Your task to perform on an android device: delete location history Image 0: 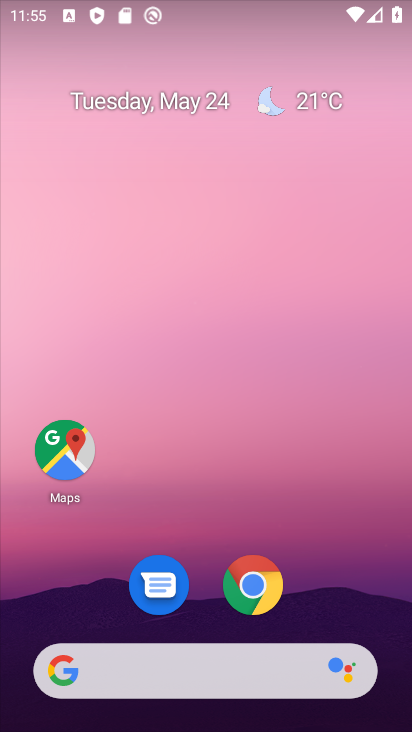
Step 0: drag from (276, 523) to (284, 57)
Your task to perform on an android device: delete location history Image 1: 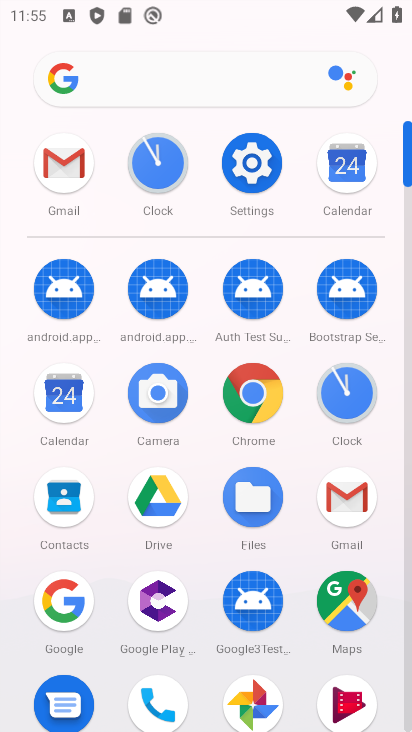
Step 1: click (262, 174)
Your task to perform on an android device: delete location history Image 2: 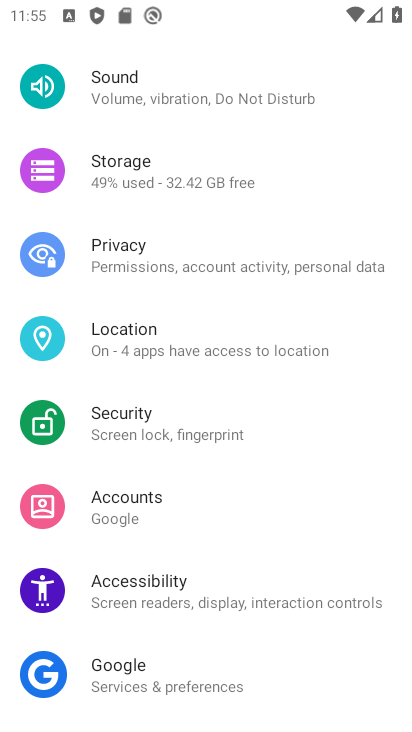
Step 2: press home button
Your task to perform on an android device: delete location history Image 3: 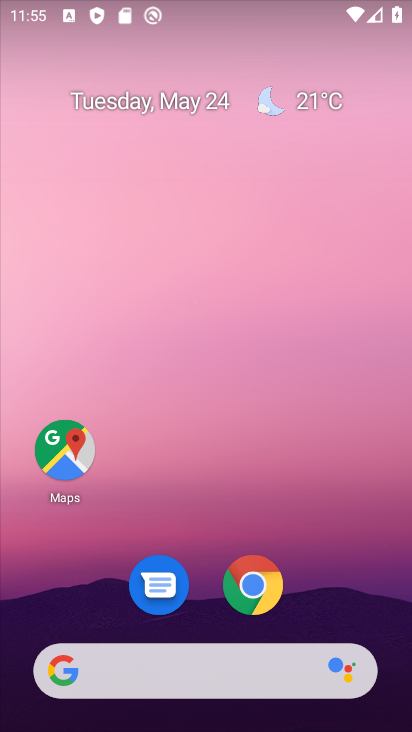
Step 3: click (65, 469)
Your task to perform on an android device: delete location history Image 4: 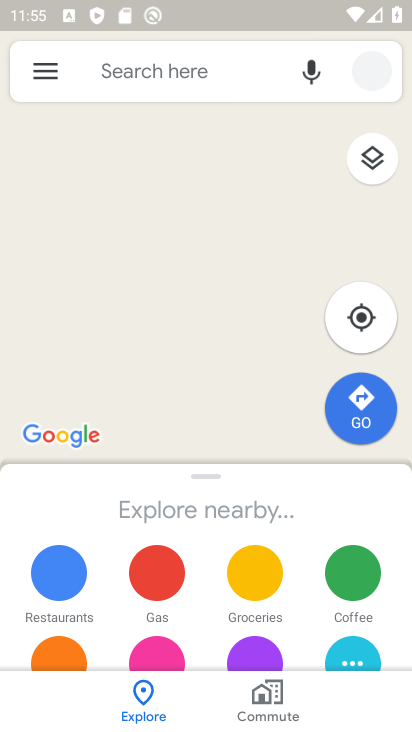
Step 4: click (51, 70)
Your task to perform on an android device: delete location history Image 5: 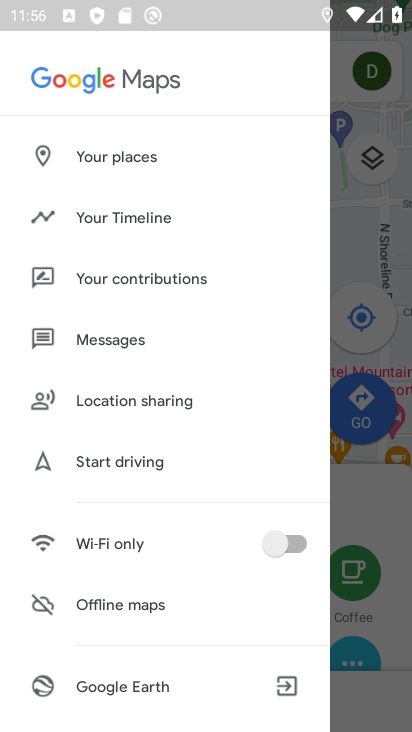
Step 5: click (119, 211)
Your task to perform on an android device: delete location history Image 6: 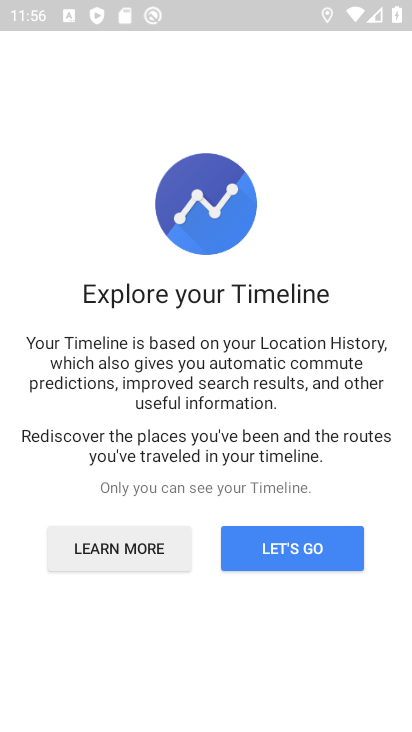
Step 6: click (289, 543)
Your task to perform on an android device: delete location history Image 7: 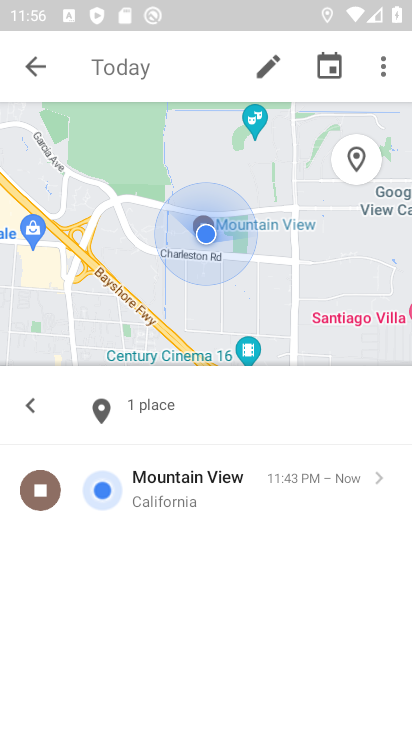
Step 7: click (382, 70)
Your task to perform on an android device: delete location history Image 8: 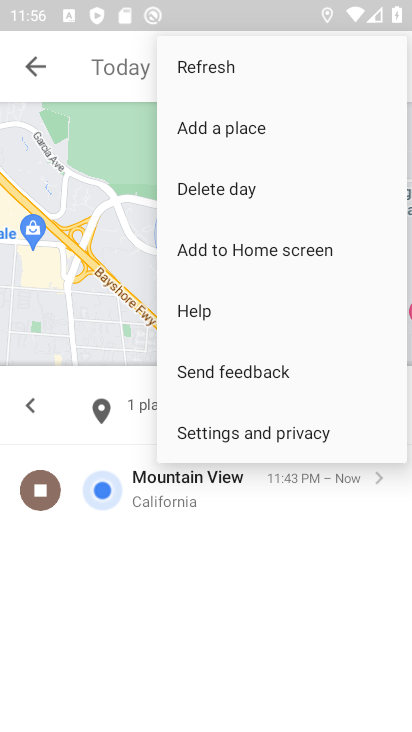
Step 8: click (282, 424)
Your task to perform on an android device: delete location history Image 9: 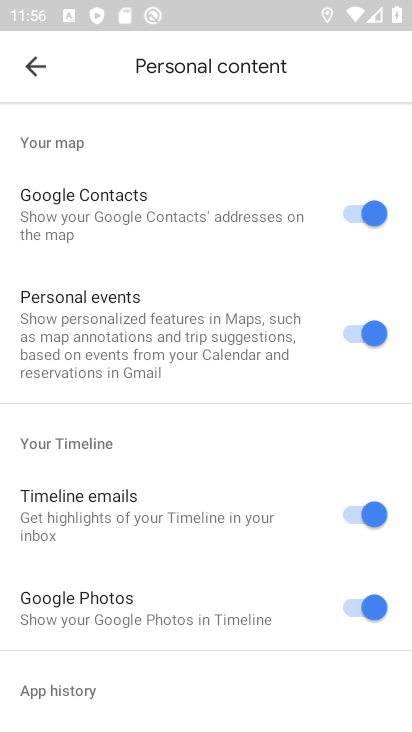
Step 9: drag from (252, 501) to (266, 70)
Your task to perform on an android device: delete location history Image 10: 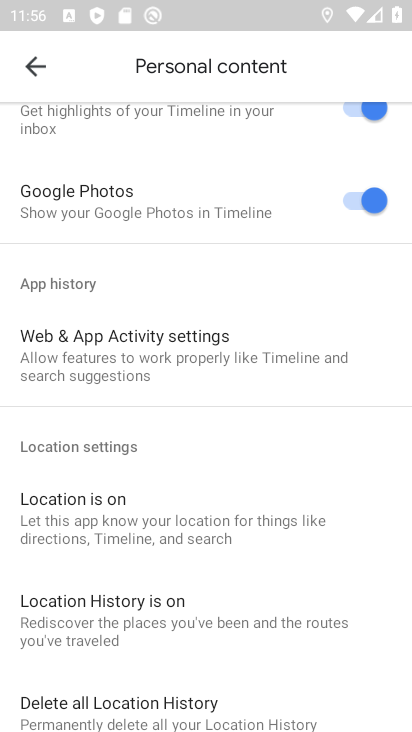
Step 10: drag from (171, 462) to (204, 116)
Your task to perform on an android device: delete location history Image 11: 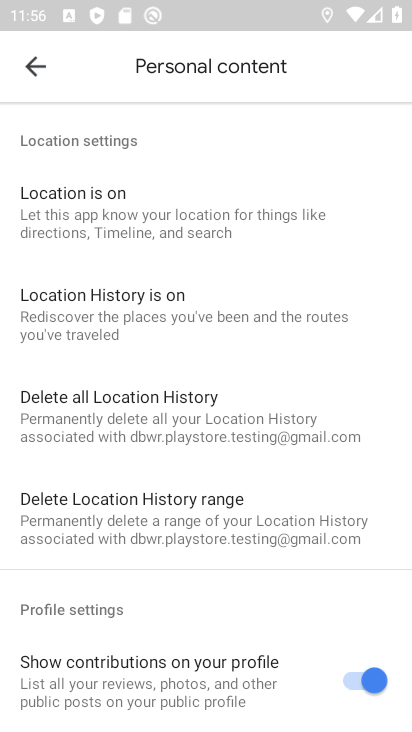
Step 11: click (175, 415)
Your task to perform on an android device: delete location history Image 12: 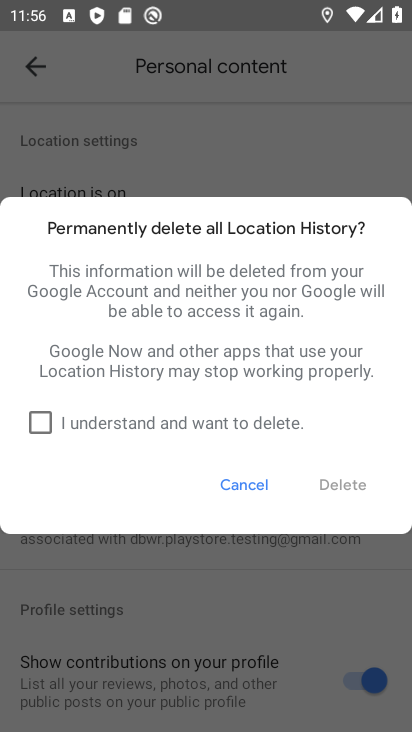
Step 12: click (46, 424)
Your task to perform on an android device: delete location history Image 13: 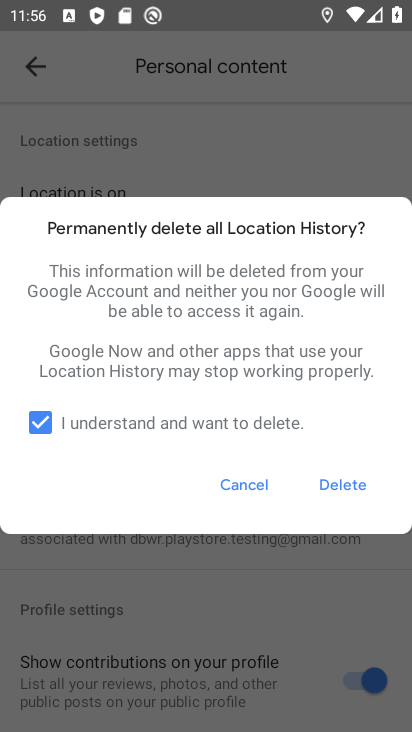
Step 13: click (334, 482)
Your task to perform on an android device: delete location history Image 14: 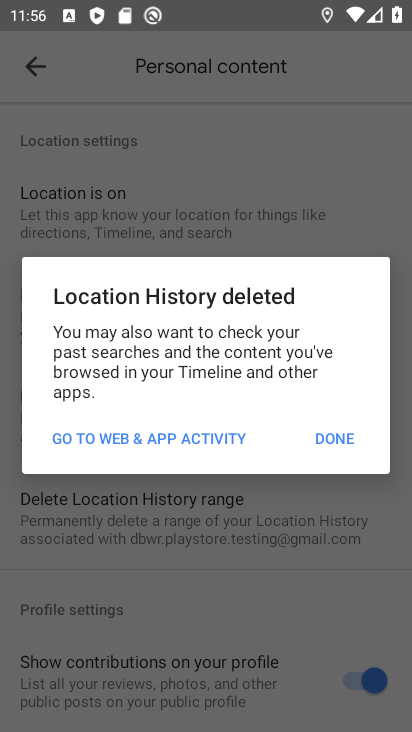
Step 14: click (334, 437)
Your task to perform on an android device: delete location history Image 15: 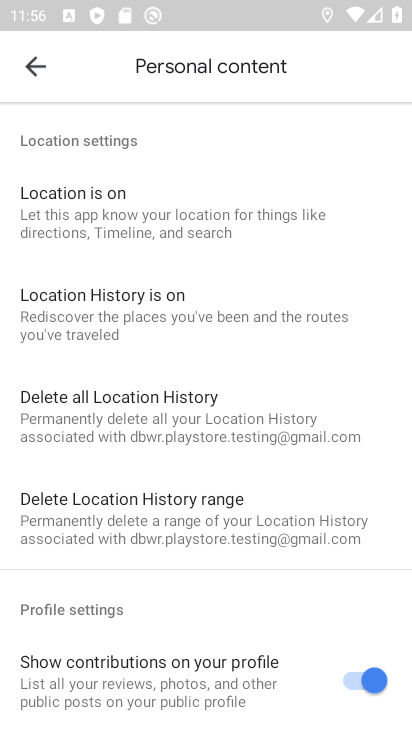
Step 15: task complete